Your task to perform on an android device: Open Wikipedia Image 0: 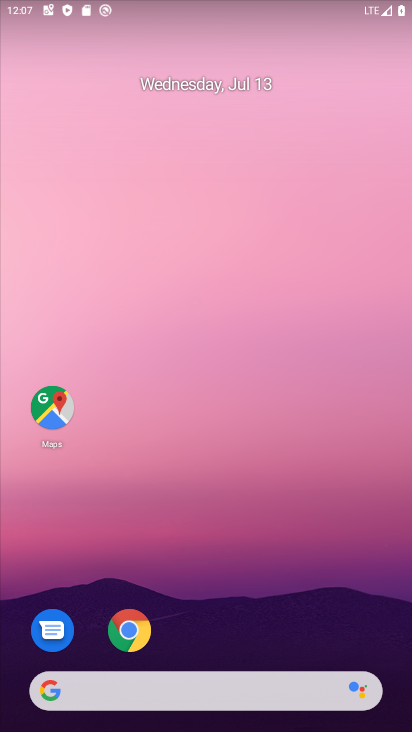
Step 0: drag from (400, 672) to (269, 21)
Your task to perform on an android device: Open Wikipedia Image 1: 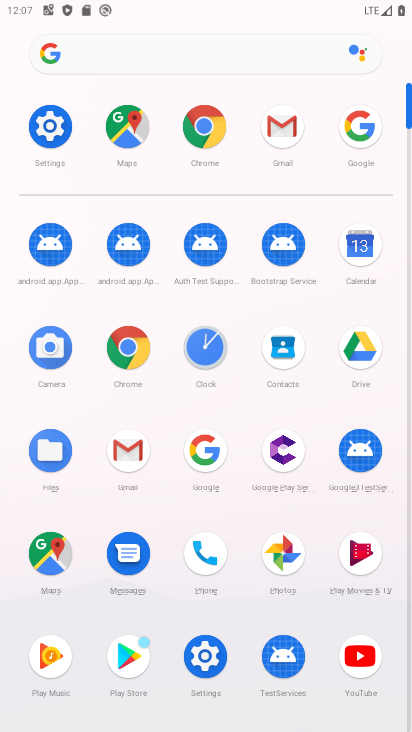
Step 1: click (206, 464)
Your task to perform on an android device: Open Wikipedia Image 2: 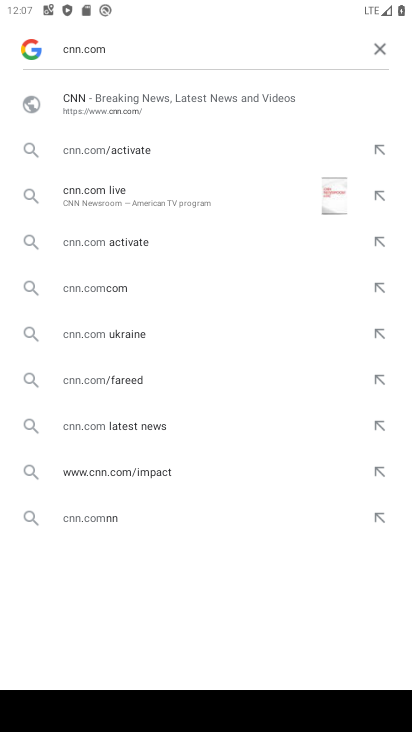
Step 2: click (381, 59)
Your task to perform on an android device: Open Wikipedia Image 3: 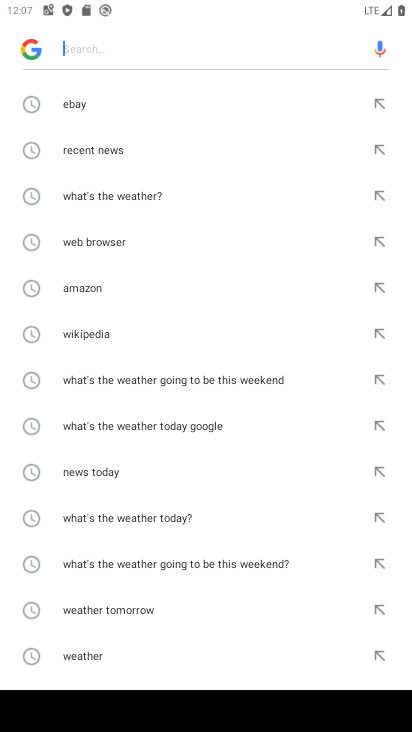
Step 3: type "Wikipedia"
Your task to perform on an android device: Open Wikipedia Image 4: 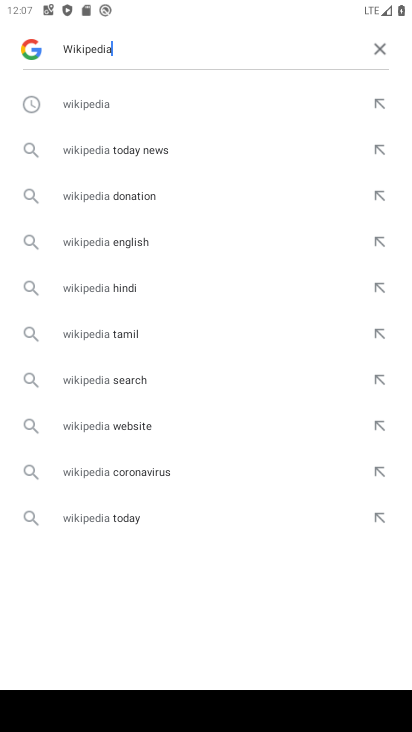
Step 4: click (104, 106)
Your task to perform on an android device: Open Wikipedia Image 5: 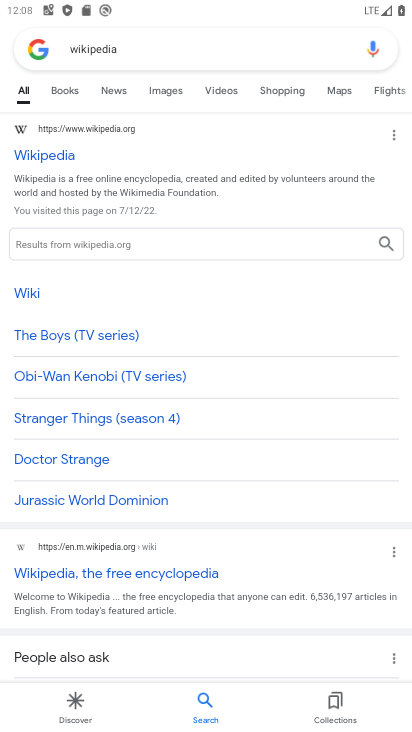
Step 5: task complete